Your task to perform on an android device: Clear all items from cart on costco.com. Add bose soundlink mini to the cart on costco.com Image 0: 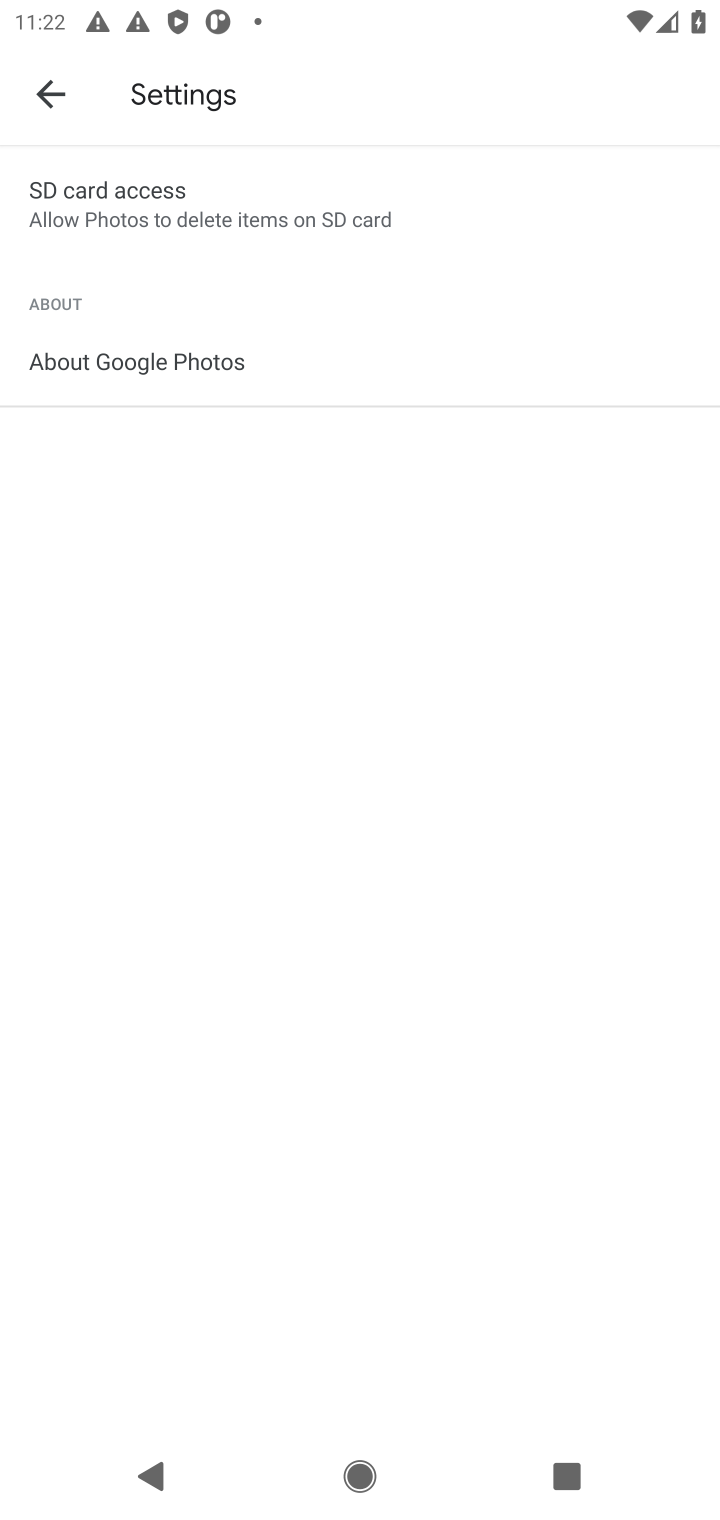
Step 0: press home button
Your task to perform on an android device: Clear all items from cart on costco.com. Add bose soundlink mini to the cart on costco.com Image 1: 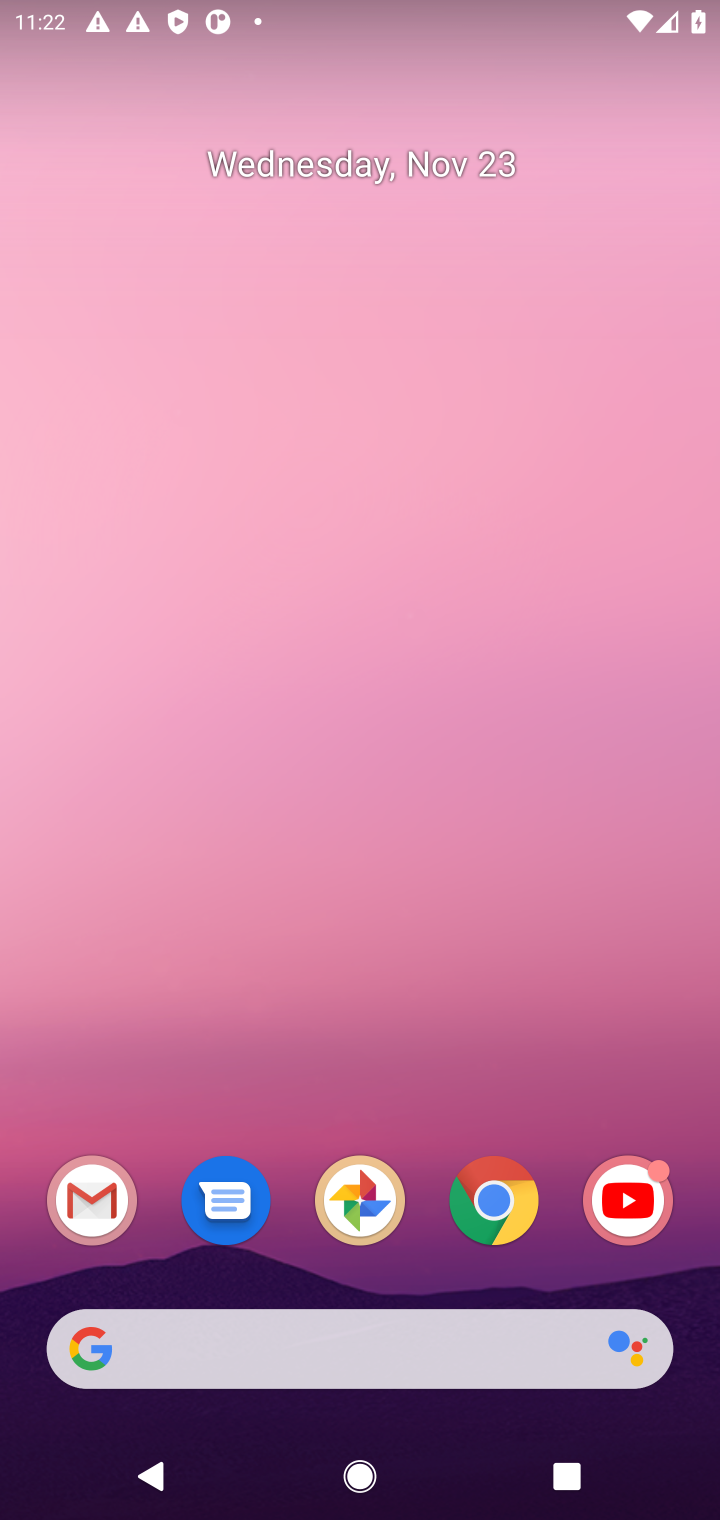
Step 1: click (299, 1384)
Your task to perform on an android device: Clear all items from cart on costco.com. Add bose soundlink mini to the cart on costco.com Image 2: 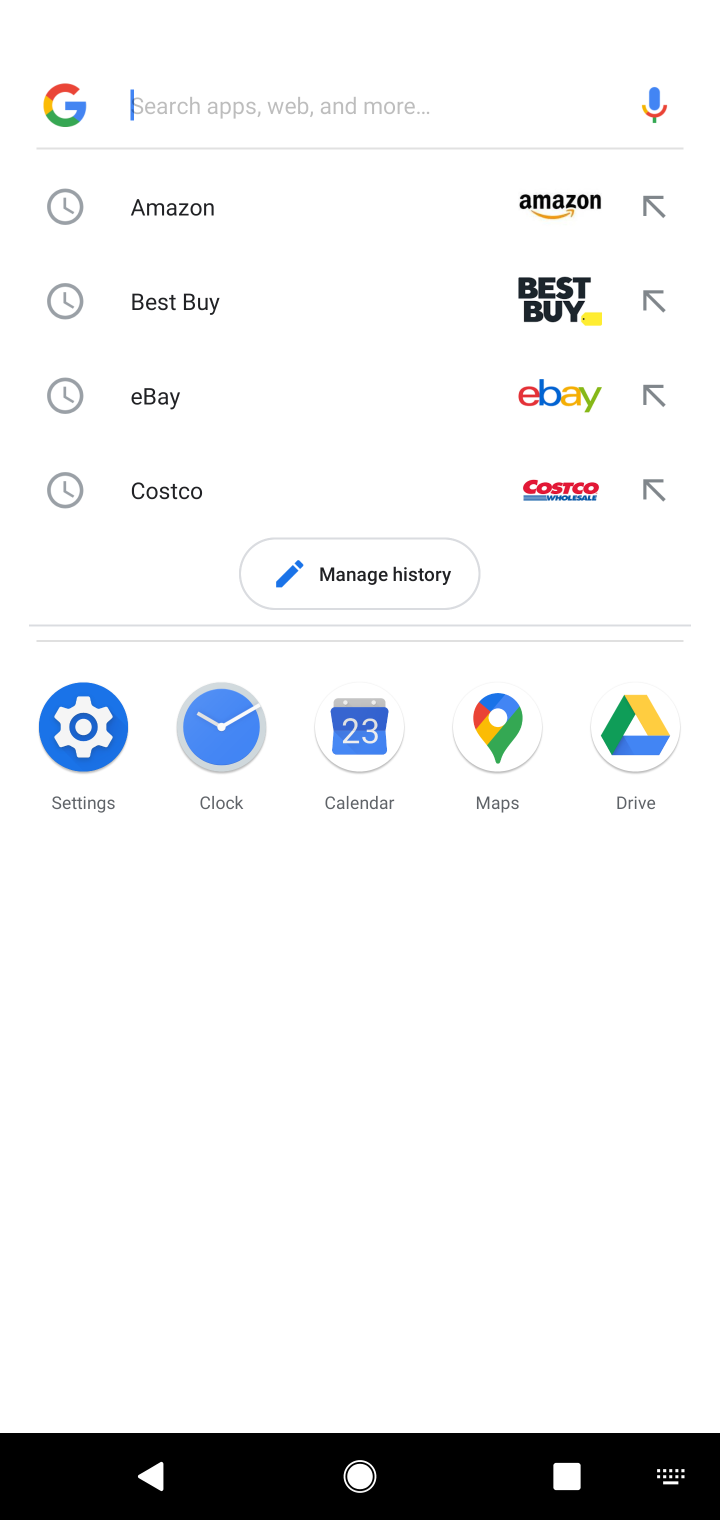
Step 2: type "costco.com"
Your task to perform on an android device: Clear all items from cart on costco.com. Add bose soundlink mini to the cart on costco.com Image 3: 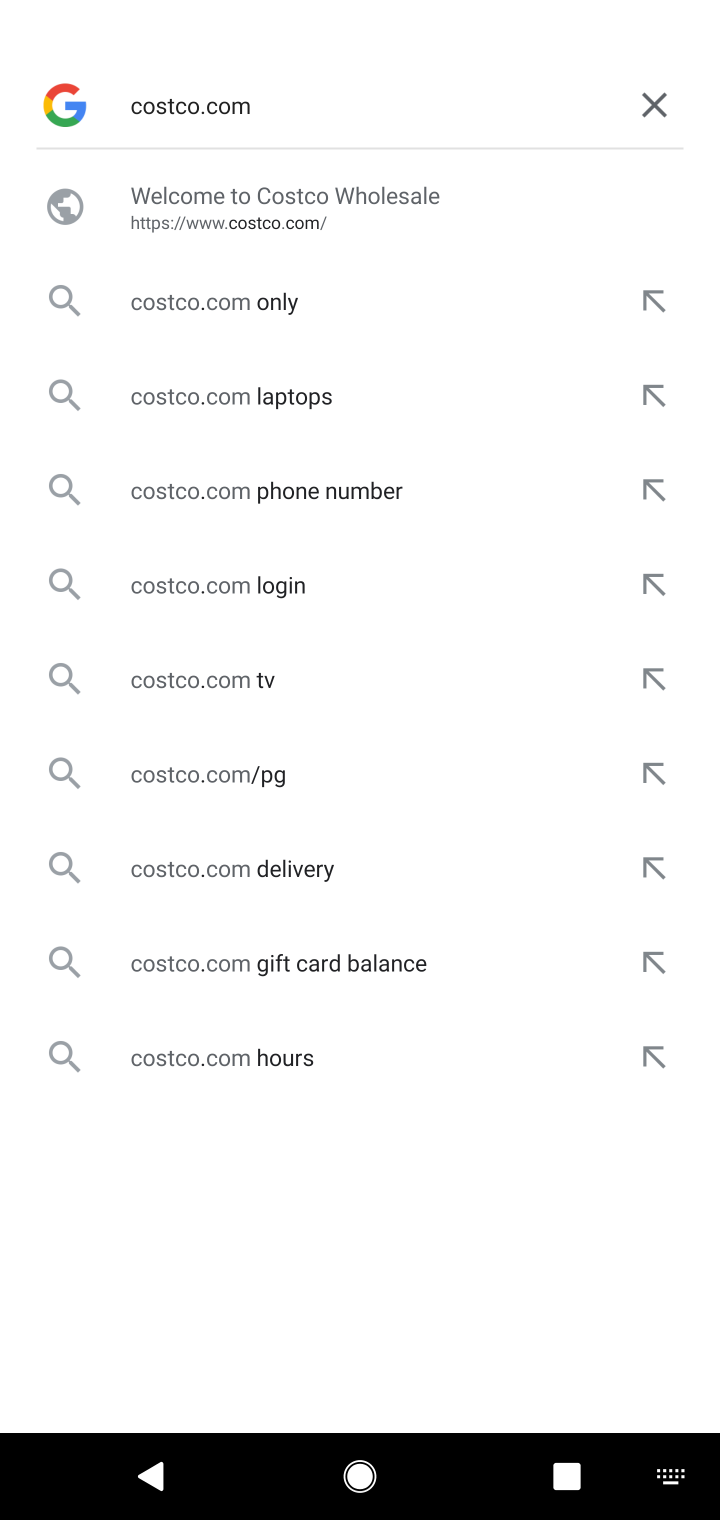
Step 3: click (204, 184)
Your task to perform on an android device: Clear all items from cart on costco.com. Add bose soundlink mini to the cart on costco.com Image 4: 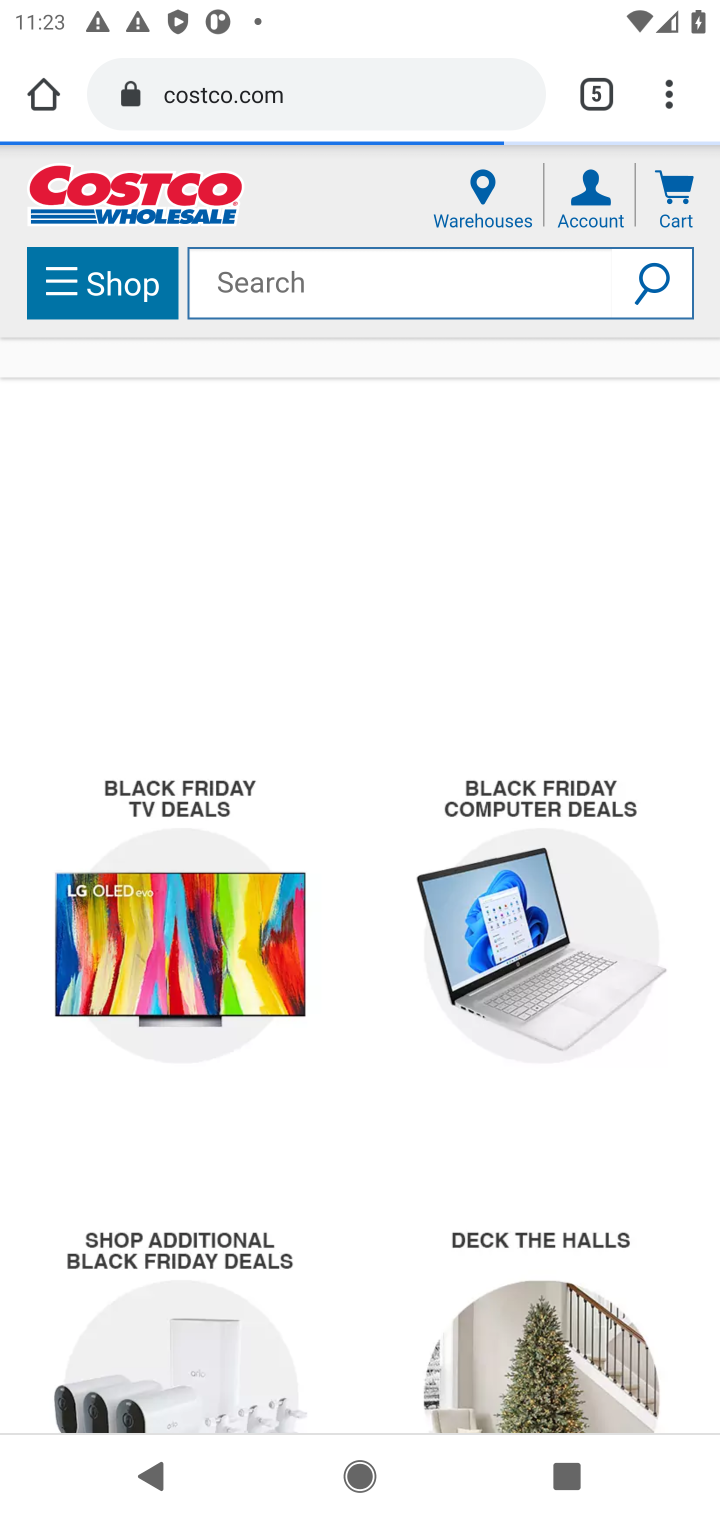
Step 4: click (298, 302)
Your task to perform on an android device: Clear all items from cart on costco.com. Add bose soundlink mini to the cart on costco.com Image 5: 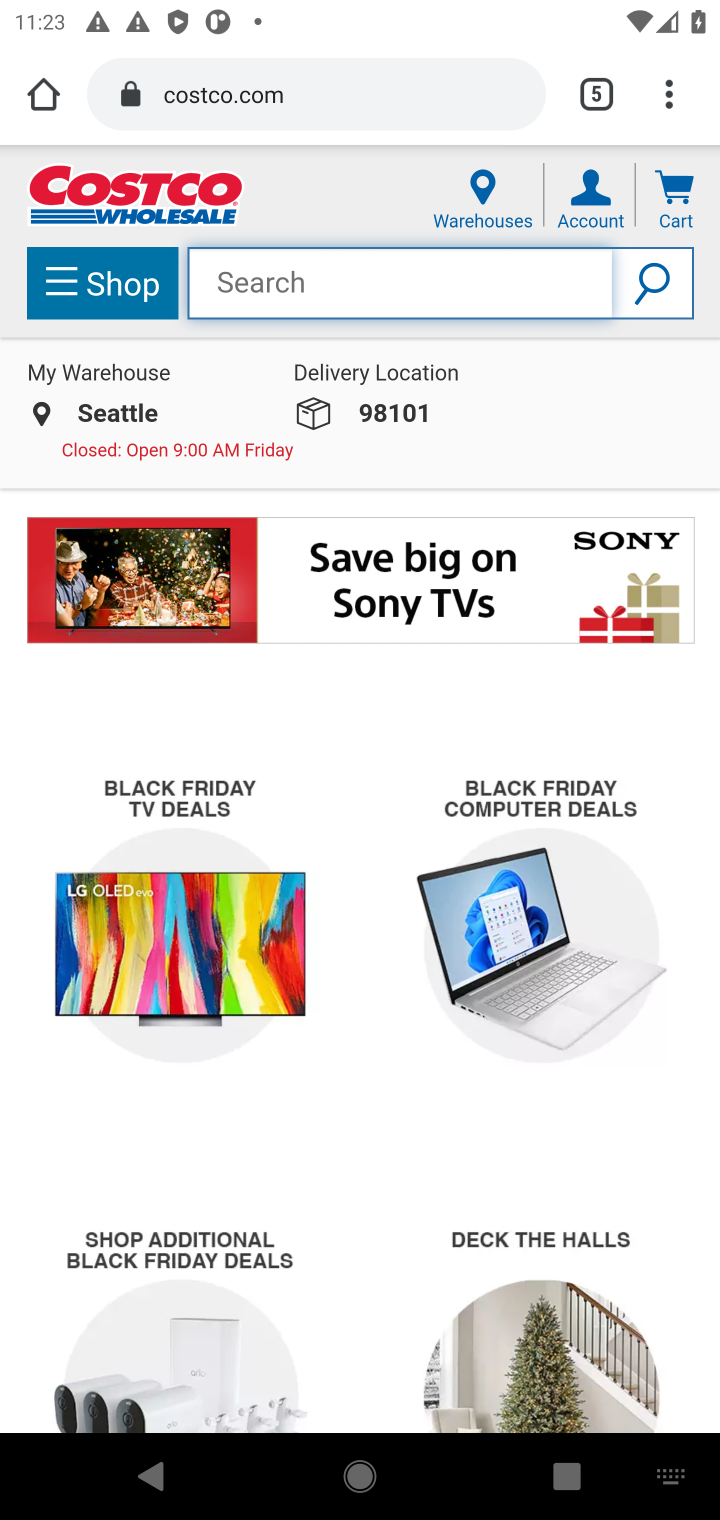
Step 5: type "bose sound link"
Your task to perform on an android device: Clear all items from cart on costco.com. Add bose soundlink mini to the cart on costco.com Image 6: 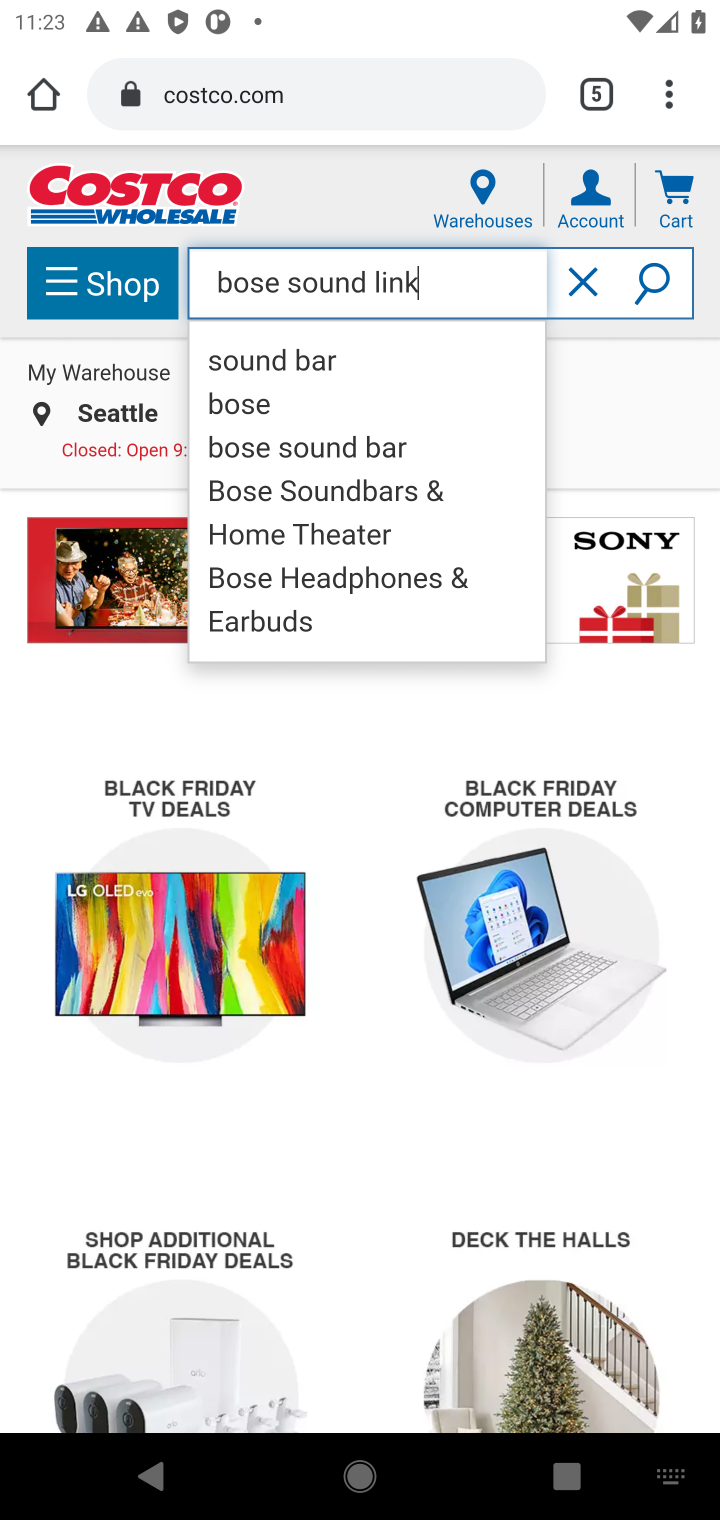
Step 6: click (301, 374)
Your task to perform on an android device: Clear all items from cart on costco.com. Add bose soundlink mini to the cart on costco.com Image 7: 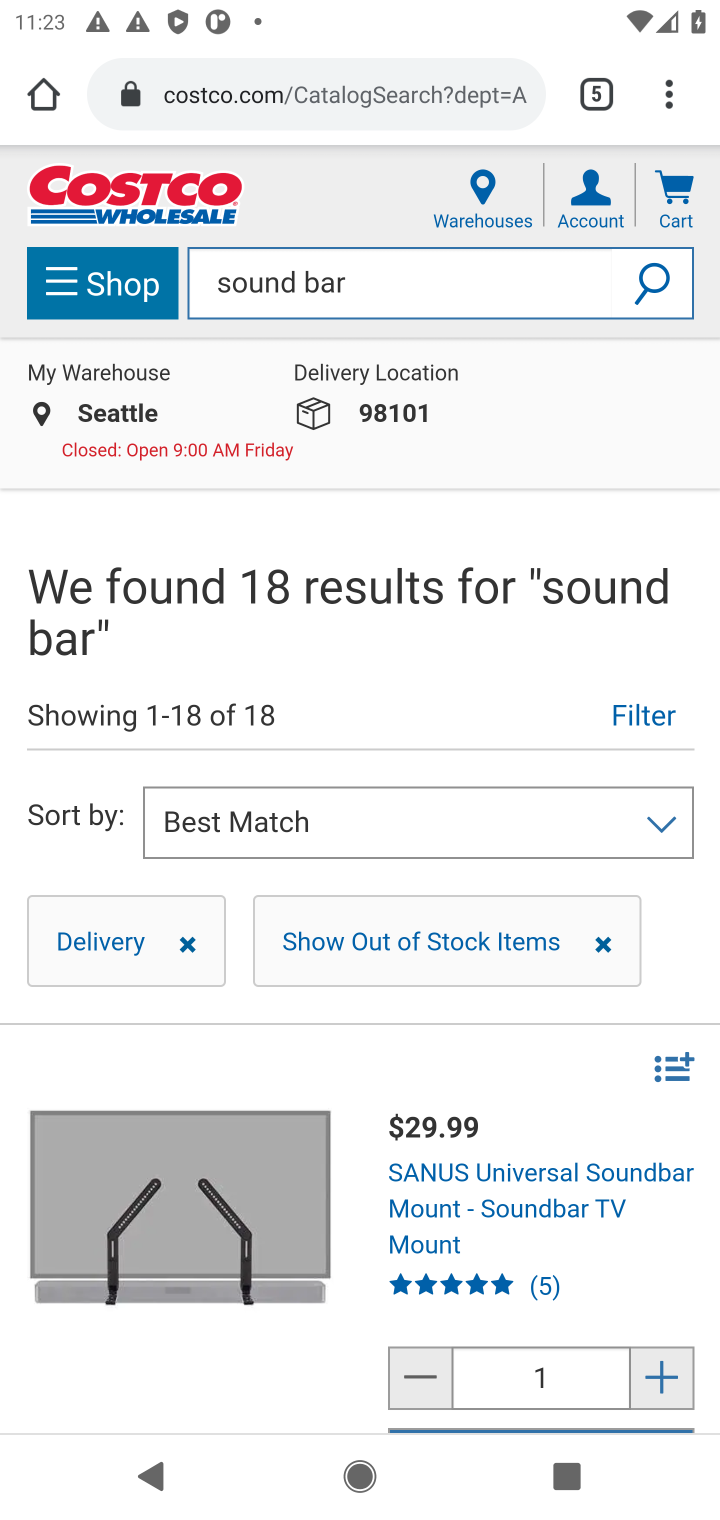
Step 7: click (495, 1192)
Your task to perform on an android device: Clear all items from cart on costco.com. Add bose soundlink mini to the cart on costco.com Image 8: 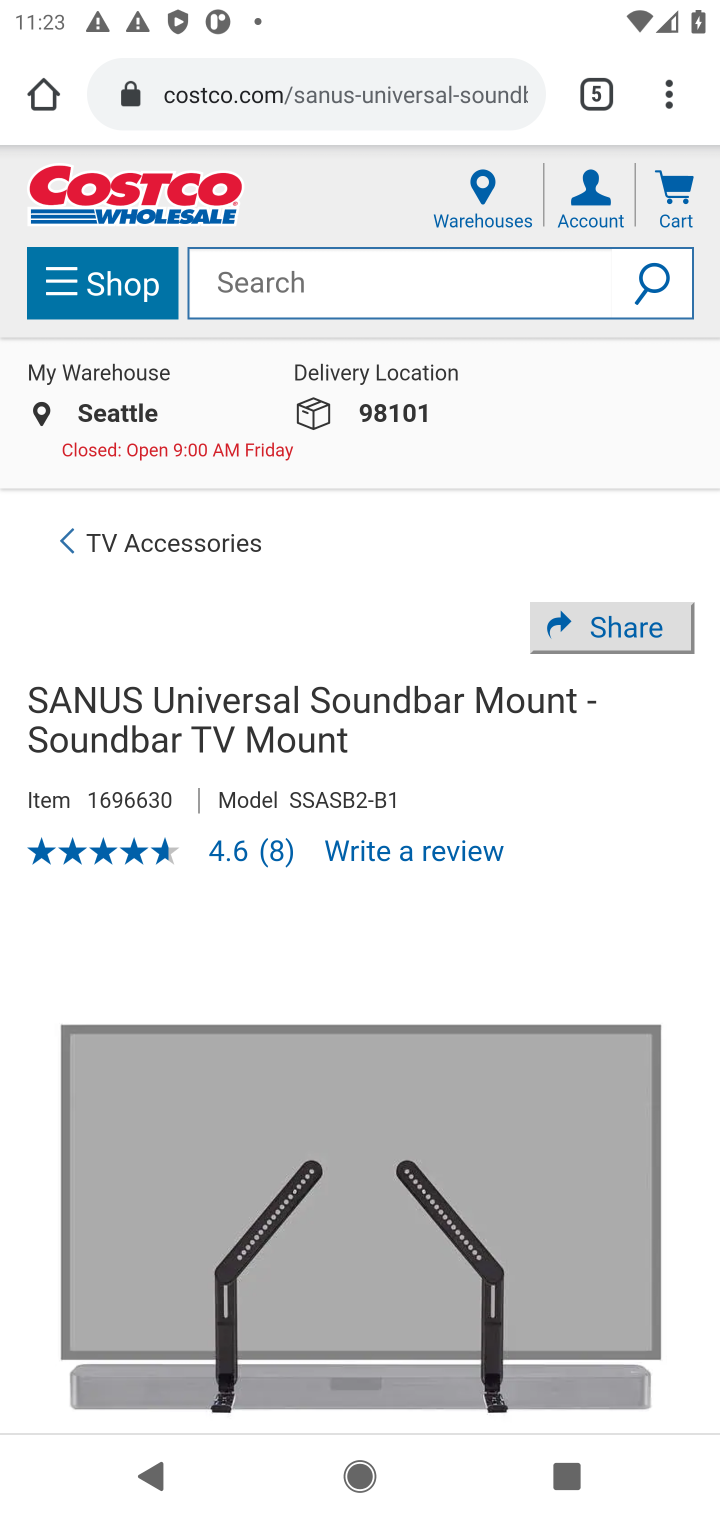
Step 8: task complete